Your task to perform on an android device: What's the weather going to be this weekend? Image 0: 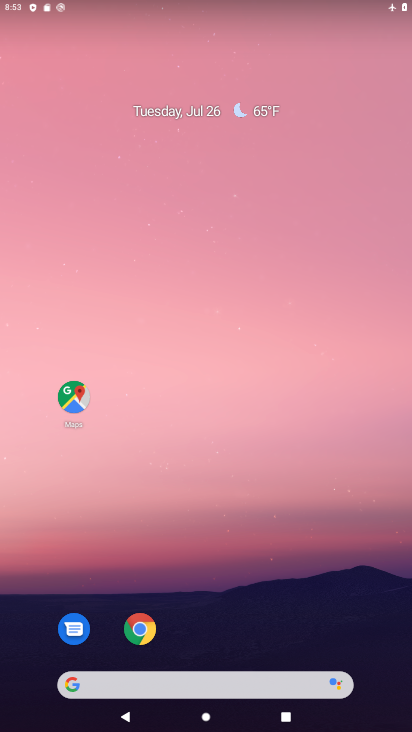
Step 0: drag from (292, 588) to (243, 47)
Your task to perform on an android device: What's the weather going to be this weekend? Image 1: 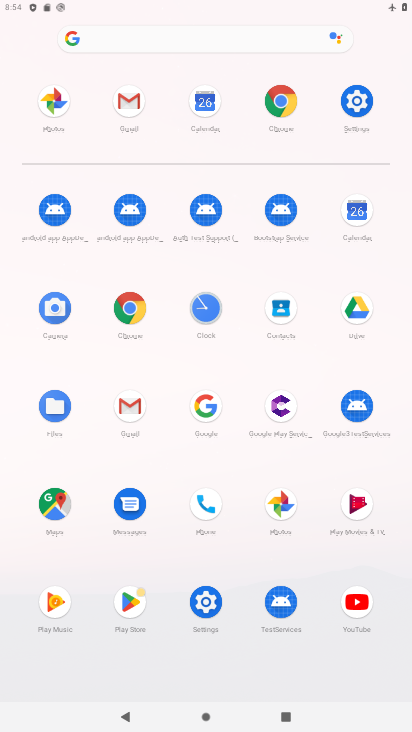
Step 1: click (271, 101)
Your task to perform on an android device: What's the weather going to be this weekend? Image 2: 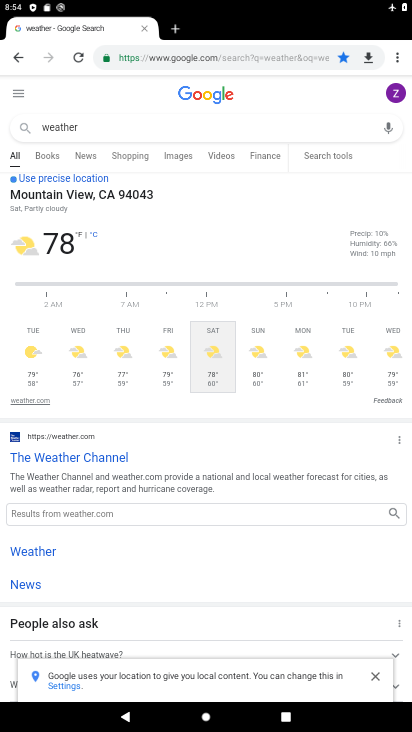
Step 2: task complete